Your task to perform on an android device: Open settings Image 0: 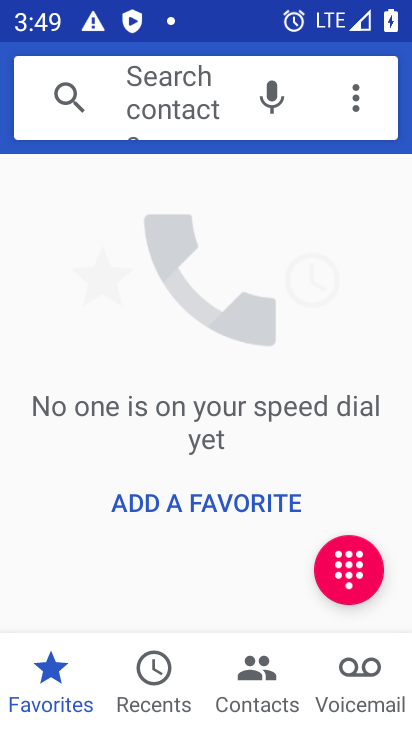
Step 0: press home button
Your task to perform on an android device: Open settings Image 1: 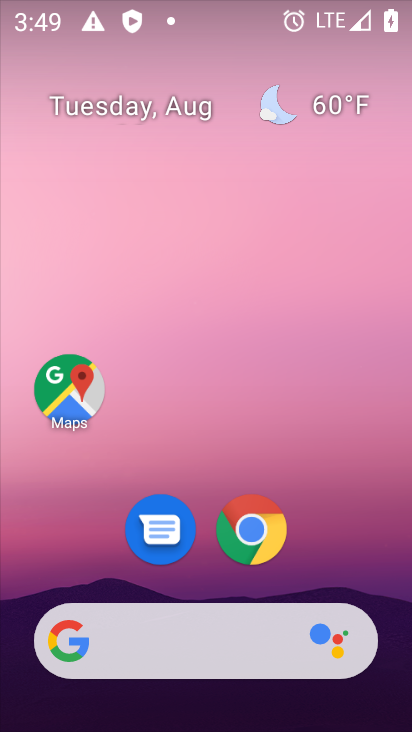
Step 1: drag from (370, 512) to (323, 0)
Your task to perform on an android device: Open settings Image 2: 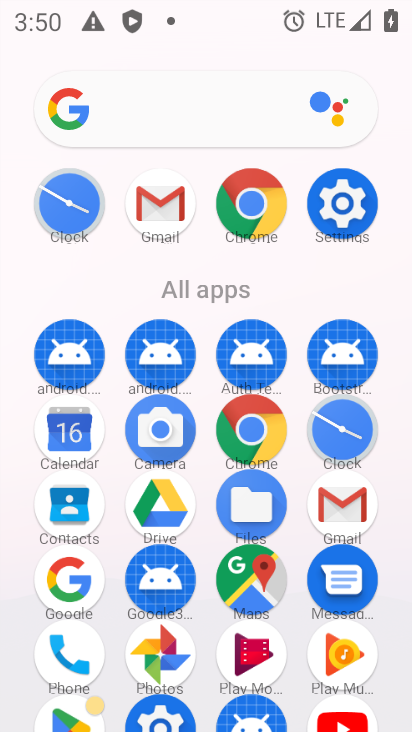
Step 2: click (161, 209)
Your task to perform on an android device: Open settings Image 3: 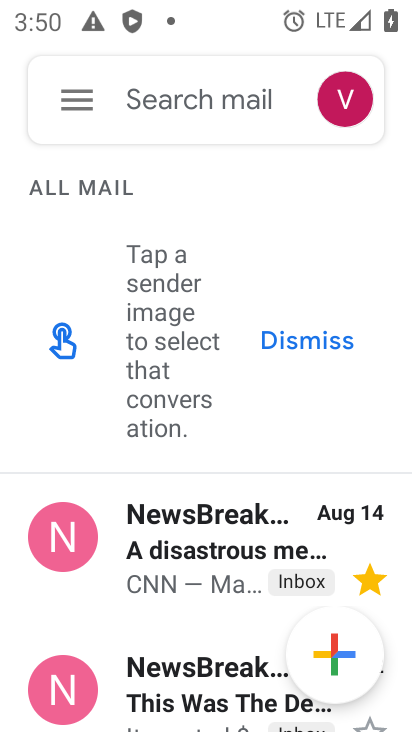
Step 3: drag from (310, 527) to (306, 140)
Your task to perform on an android device: Open settings Image 4: 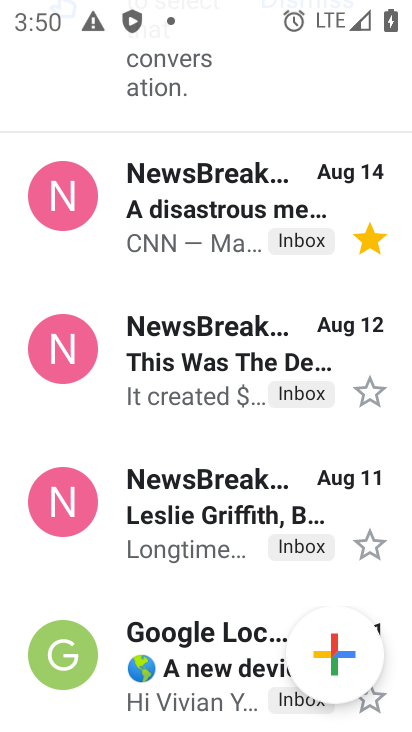
Step 4: click (246, 510)
Your task to perform on an android device: Open settings Image 5: 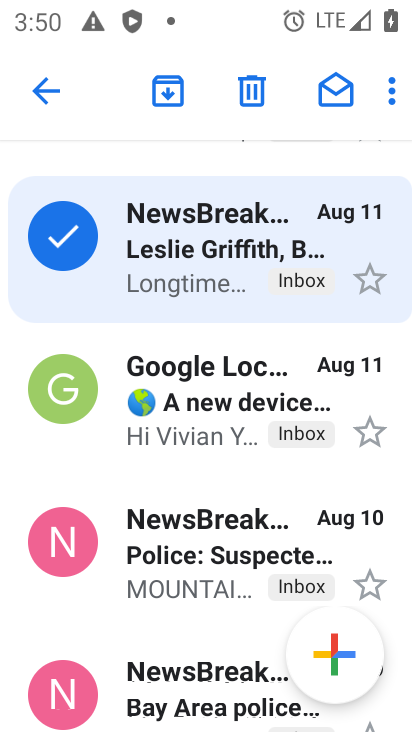
Step 5: click (404, 74)
Your task to perform on an android device: Open settings Image 6: 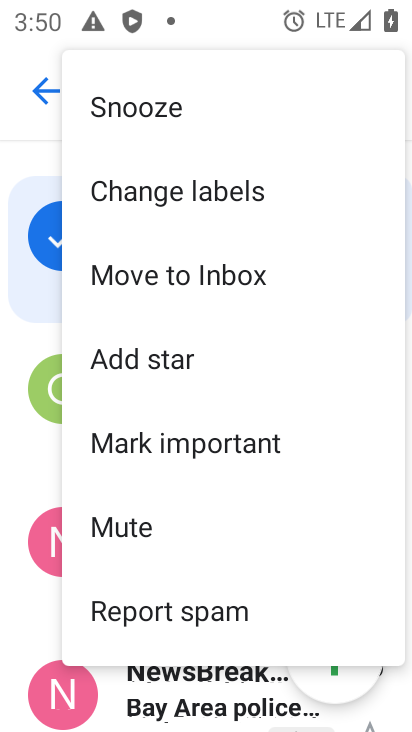
Step 6: click (145, 112)
Your task to perform on an android device: Open settings Image 7: 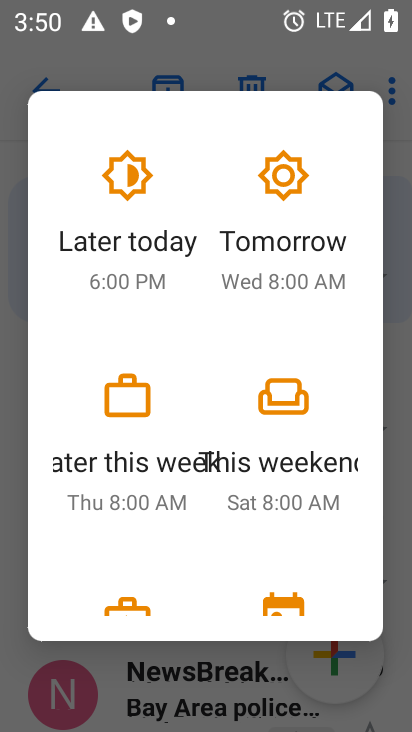
Step 7: click (292, 224)
Your task to perform on an android device: Open settings Image 8: 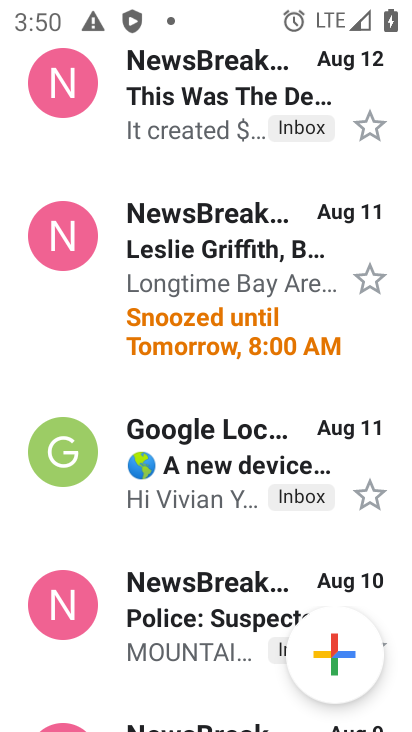
Step 8: task complete